Your task to perform on an android device: Clear all items from cart on amazon.com. Image 0: 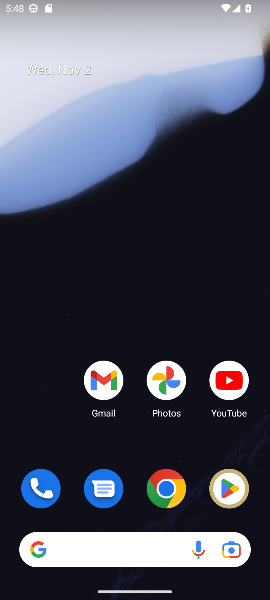
Step 0: click (166, 498)
Your task to perform on an android device: Clear all items from cart on amazon.com. Image 1: 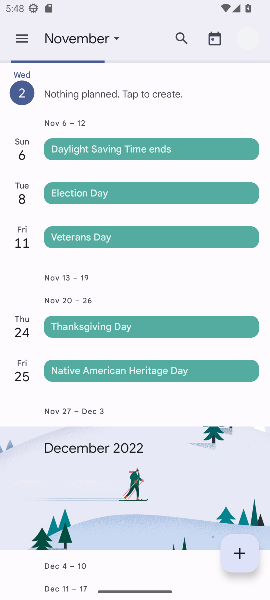
Step 1: press home button
Your task to perform on an android device: Clear all items from cart on amazon.com. Image 2: 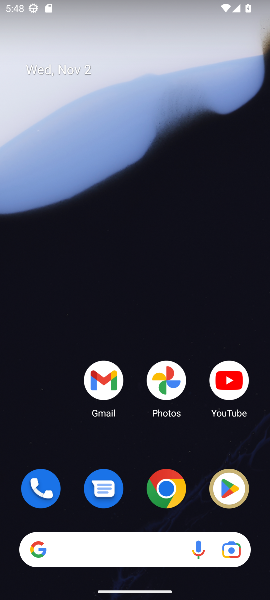
Step 2: click (167, 491)
Your task to perform on an android device: Clear all items from cart on amazon.com. Image 3: 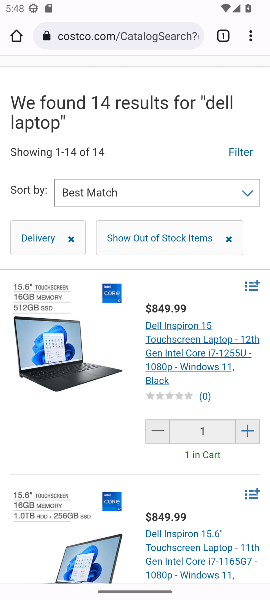
Step 3: click (131, 35)
Your task to perform on an android device: Clear all items from cart on amazon.com. Image 4: 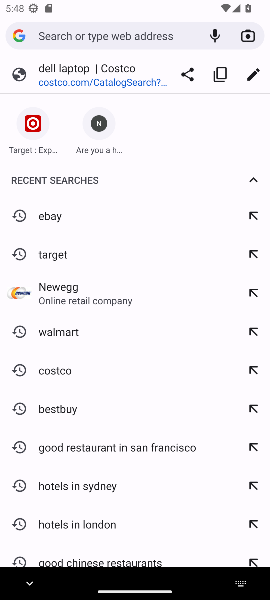
Step 4: type "amazon.com"
Your task to perform on an android device: Clear all items from cart on amazon.com. Image 5: 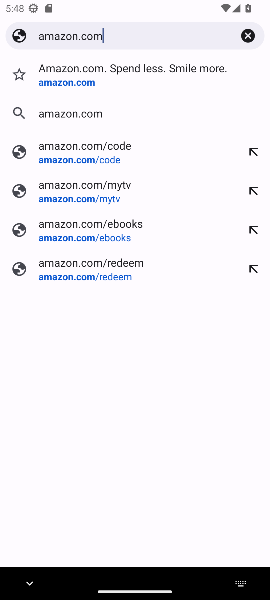
Step 5: click (90, 78)
Your task to perform on an android device: Clear all items from cart on amazon.com. Image 6: 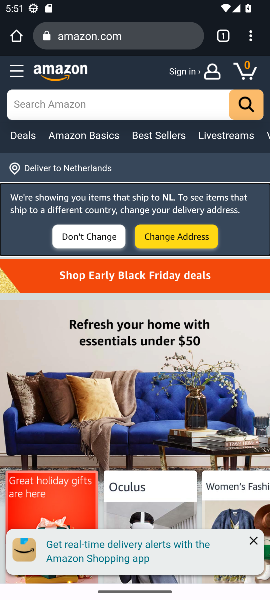
Step 6: task complete